Your task to perform on an android device: Clear the shopping cart on walmart.com. Image 0: 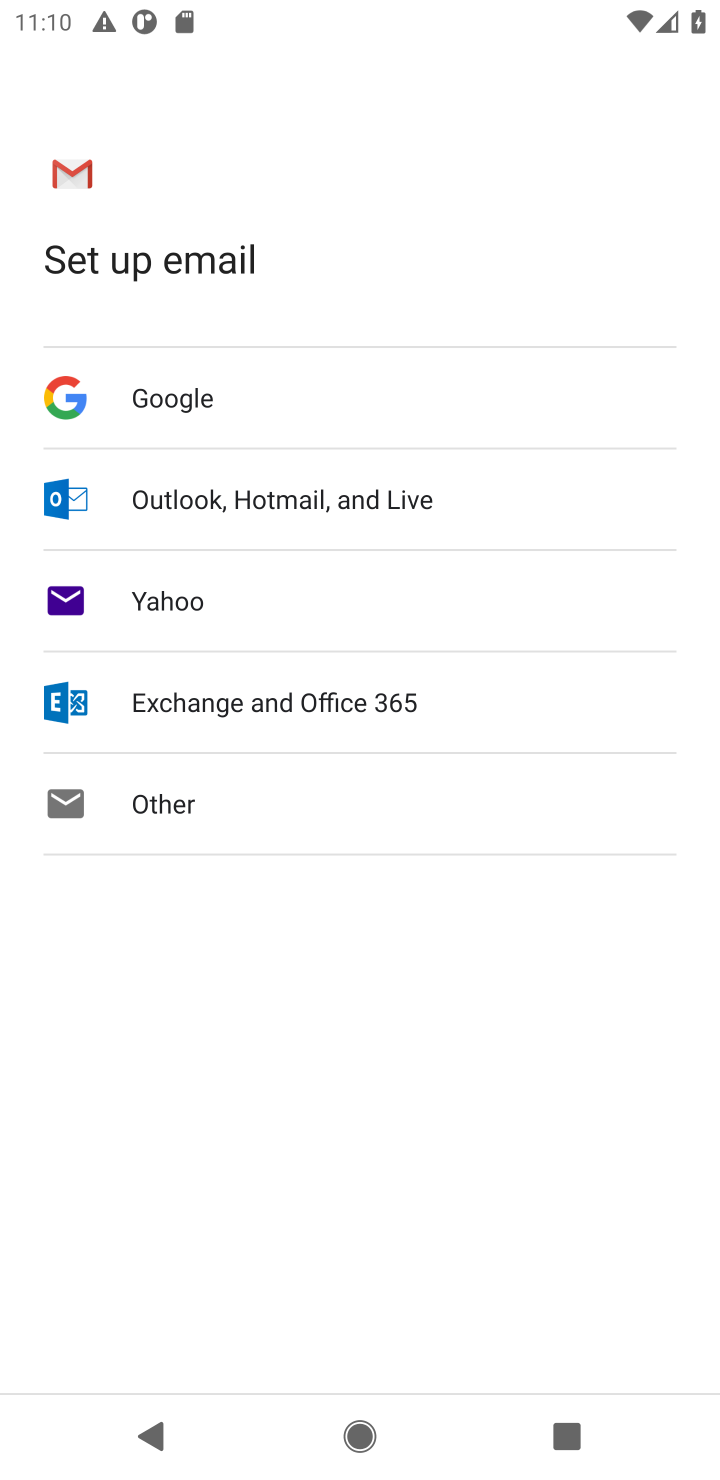
Step 0: press home button
Your task to perform on an android device: Clear the shopping cart on walmart.com. Image 1: 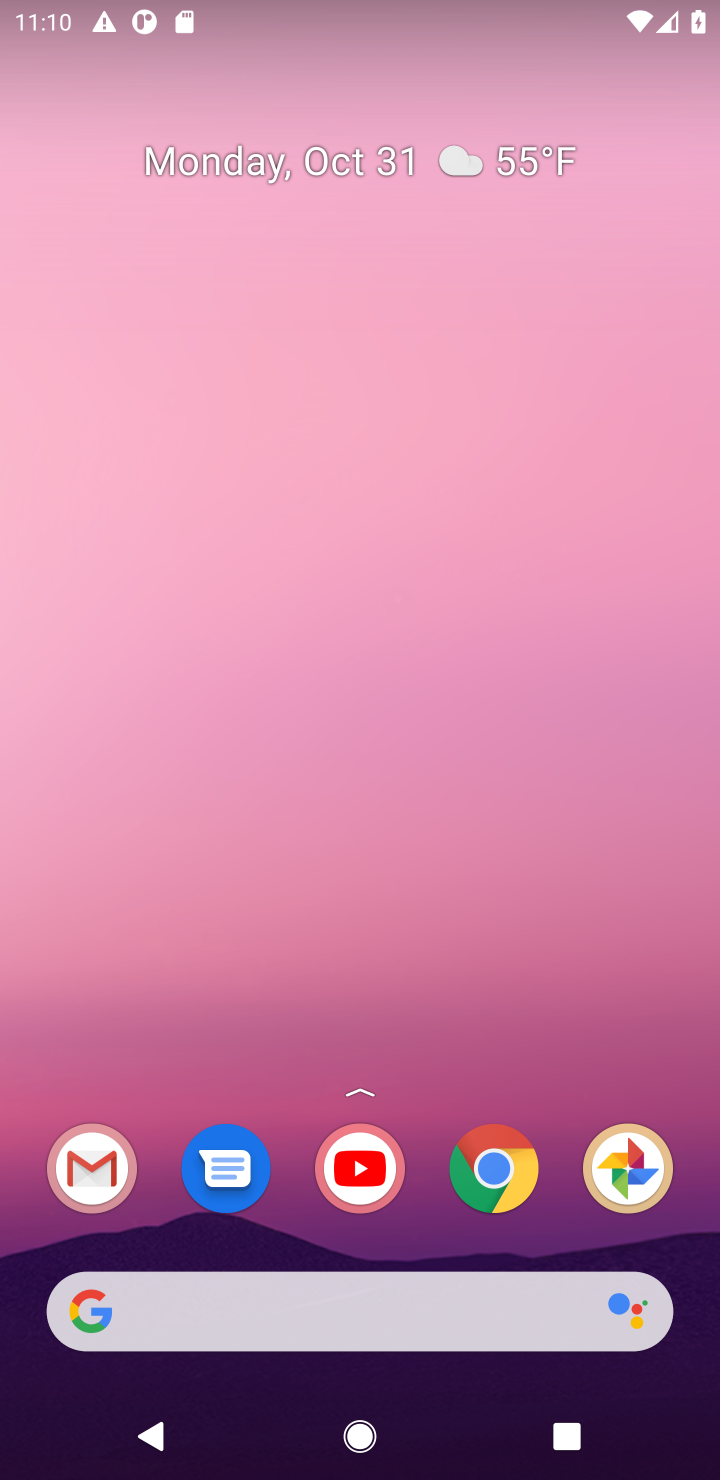
Step 1: click (501, 1189)
Your task to perform on an android device: Clear the shopping cart on walmart.com. Image 2: 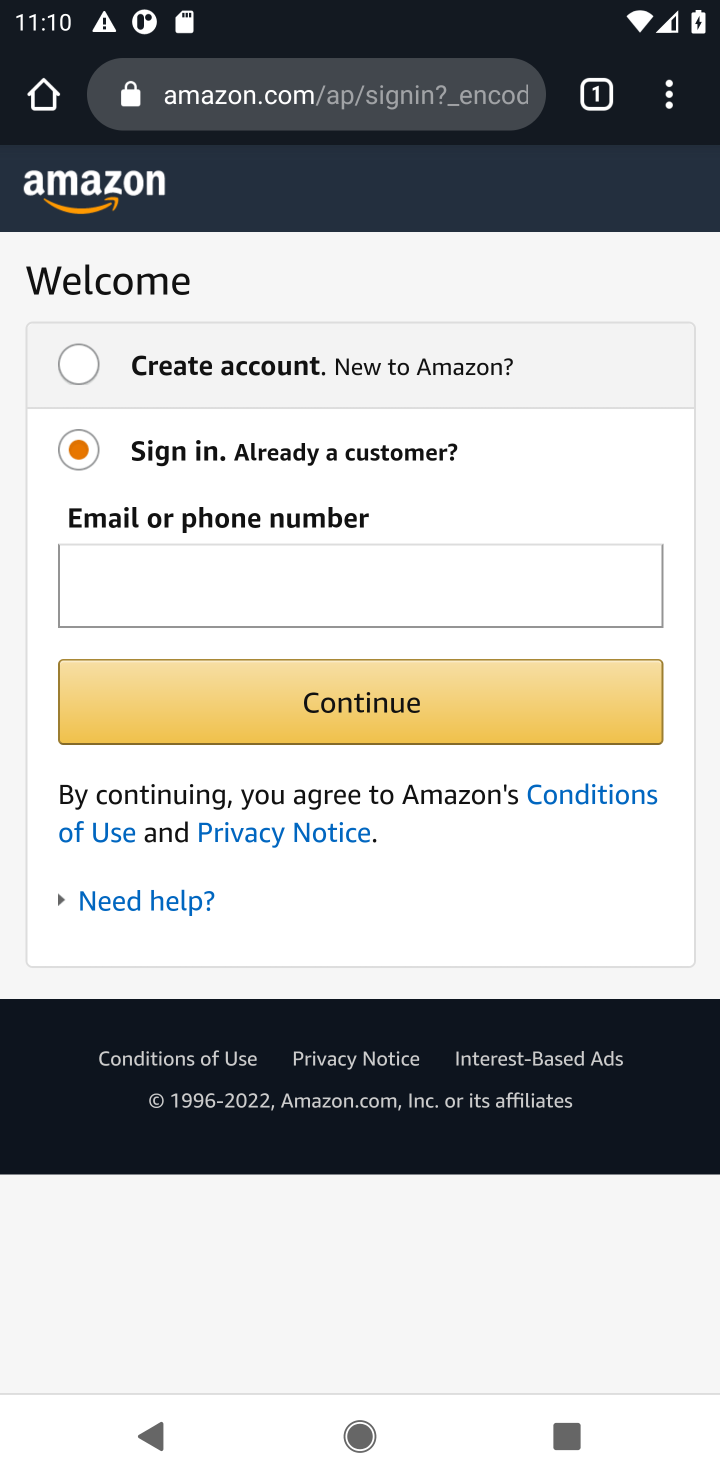
Step 2: click (303, 114)
Your task to perform on an android device: Clear the shopping cart on walmart.com. Image 3: 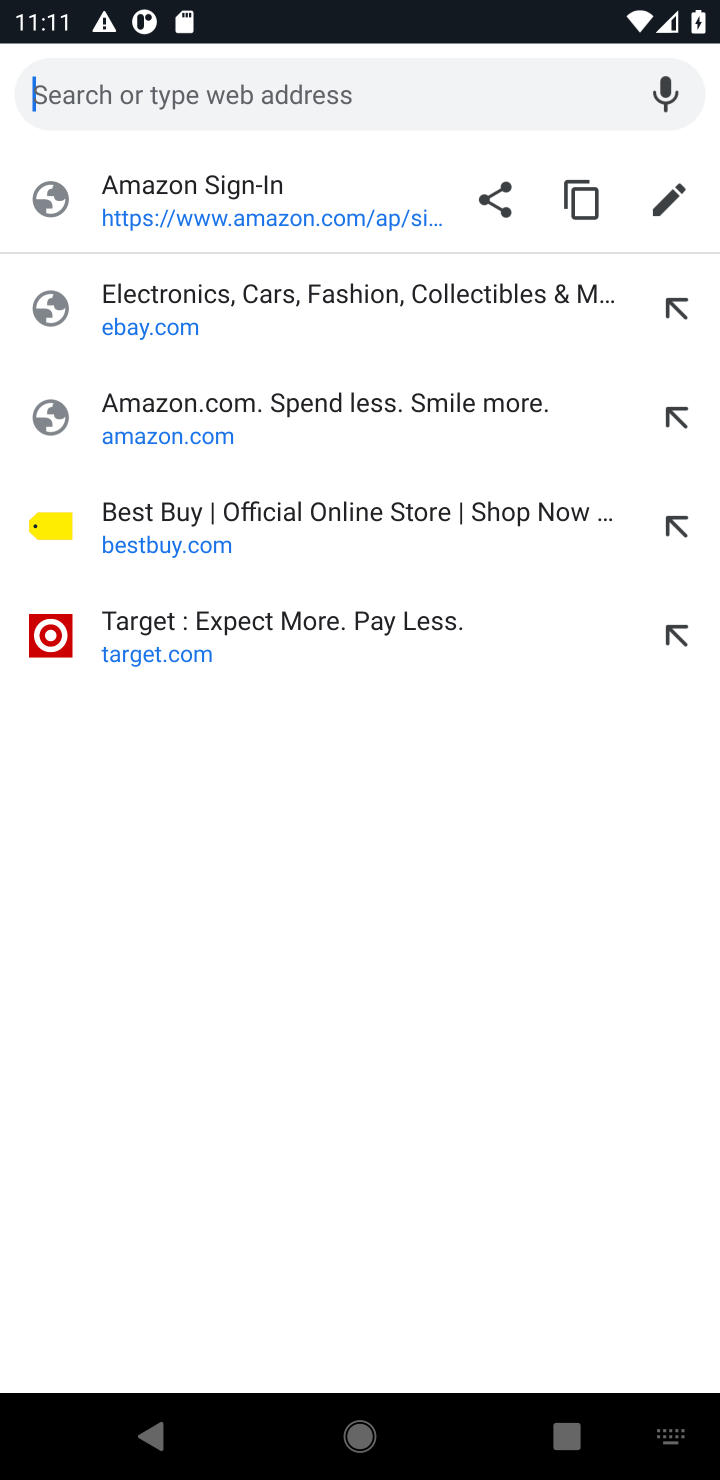
Step 3: type "walmart.com"
Your task to perform on an android device: Clear the shopping cart on walmart.com. Image 4: 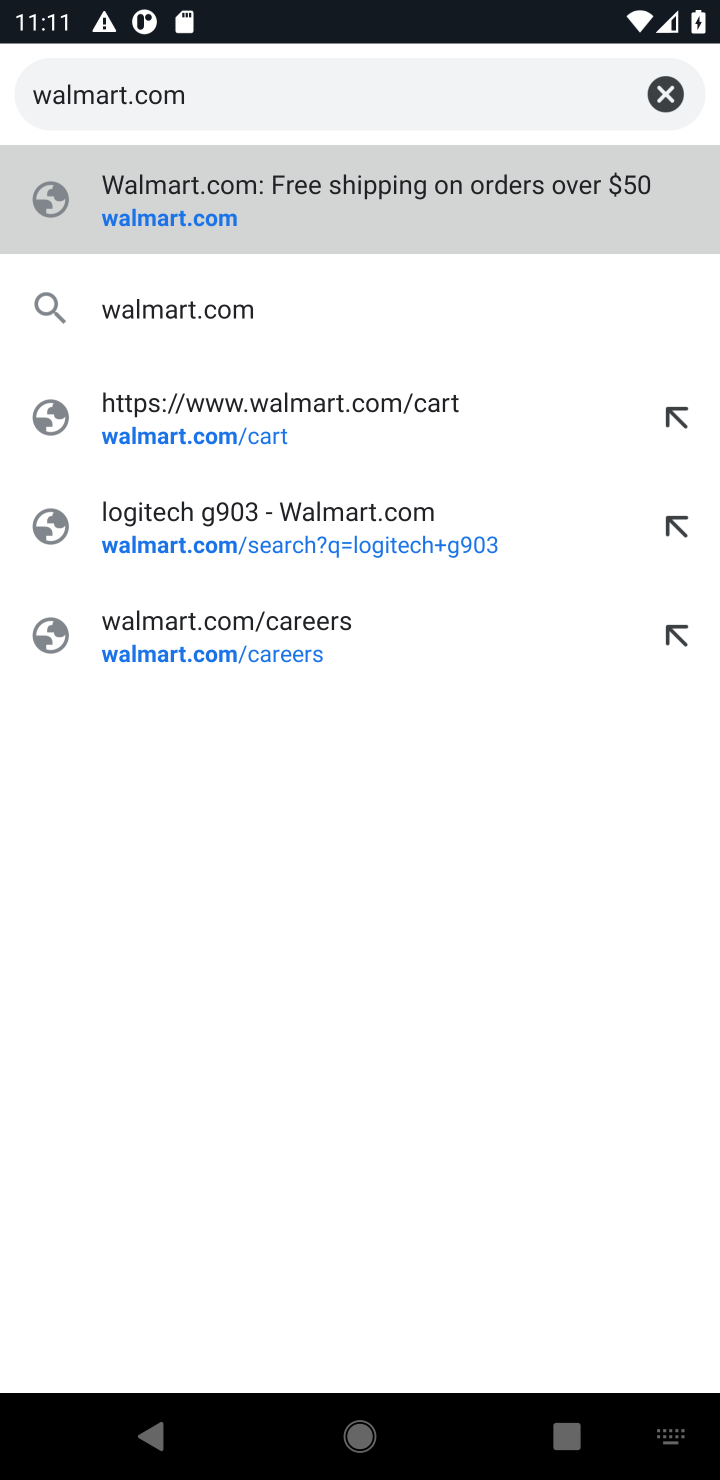
Step 4: click (369, 220)
Your task to perform on an android device: Clear the shopping cart on walmart.com. Image 5: 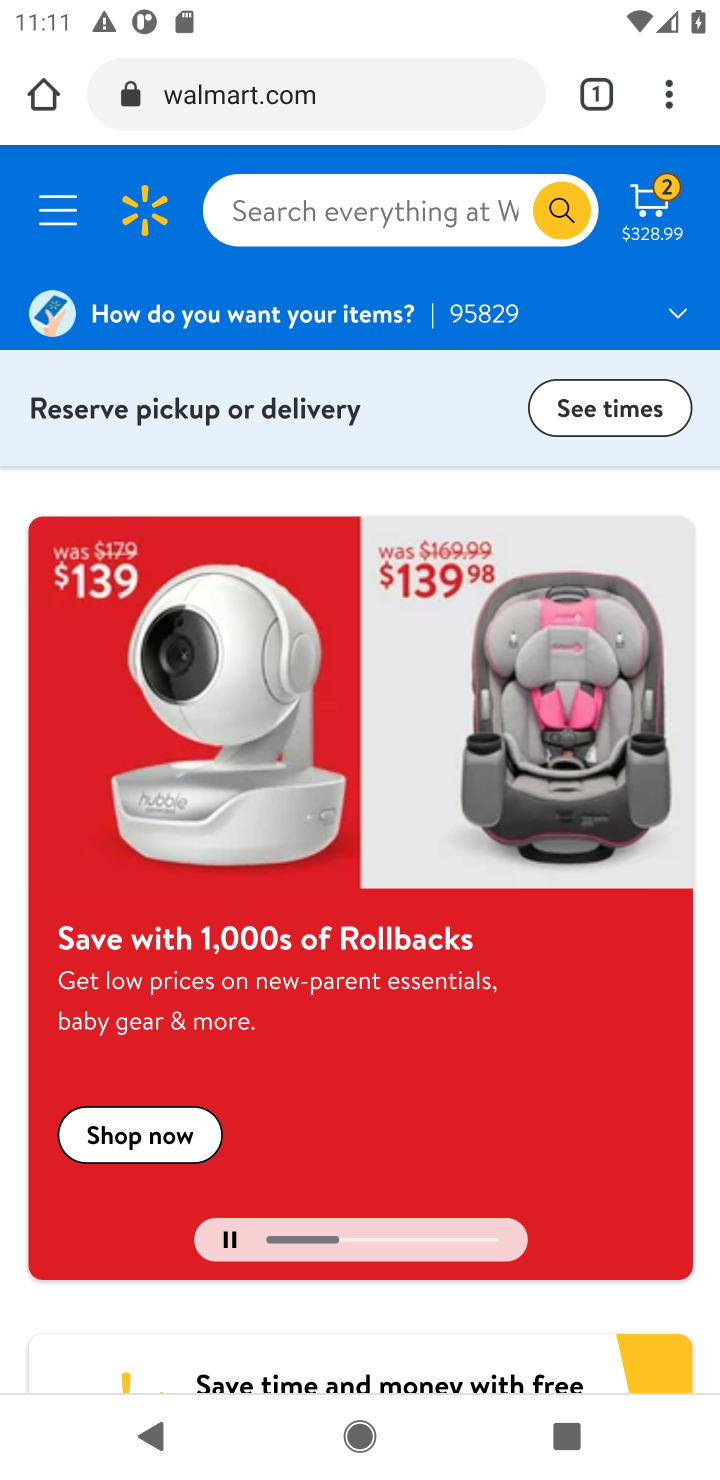
Step 5: click (664, 193)
Your task to perform on an android device: Clear the shopping cart on walmart.com. Image 6: 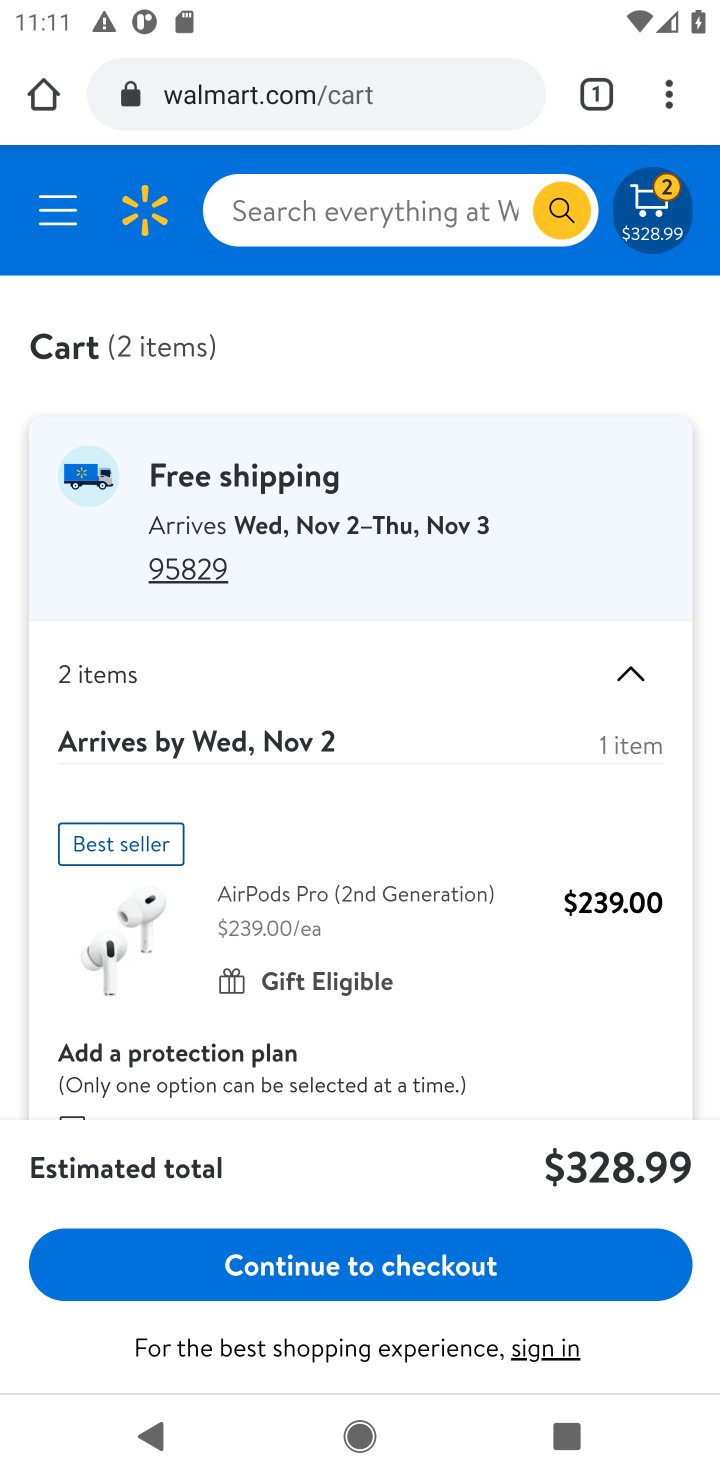
Step 6: drag from (596, 981) to (502, 342)
Your task to perform on an android device: Clear the shopping cart on walmart.com. Image 7: 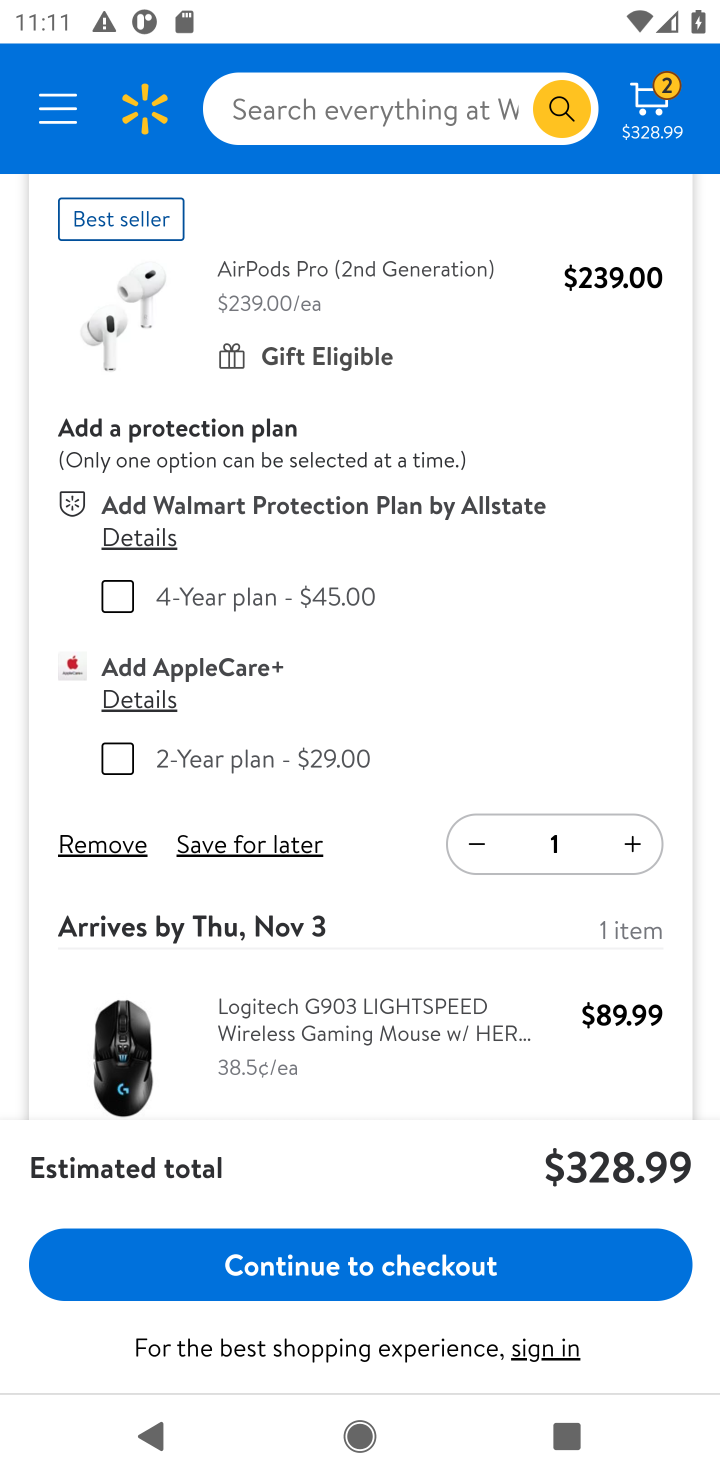
Step 7: click (102, 847)
Your task to perform on an android device: Clear the shopping cart on walmart.com. Image 8: 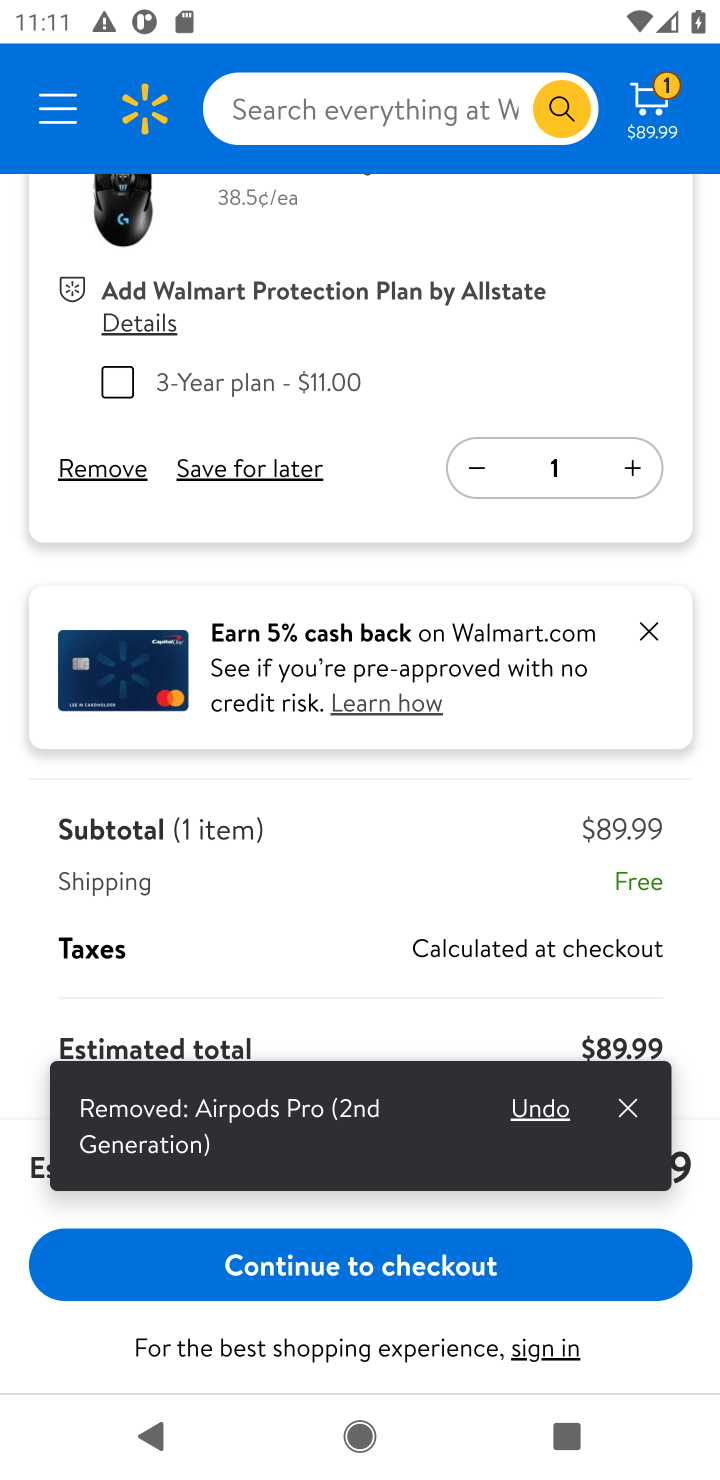
Step 8: click (102, 466)
Your task to perform on an android device: Clear the shopping cart on walmart.com. Image 9: 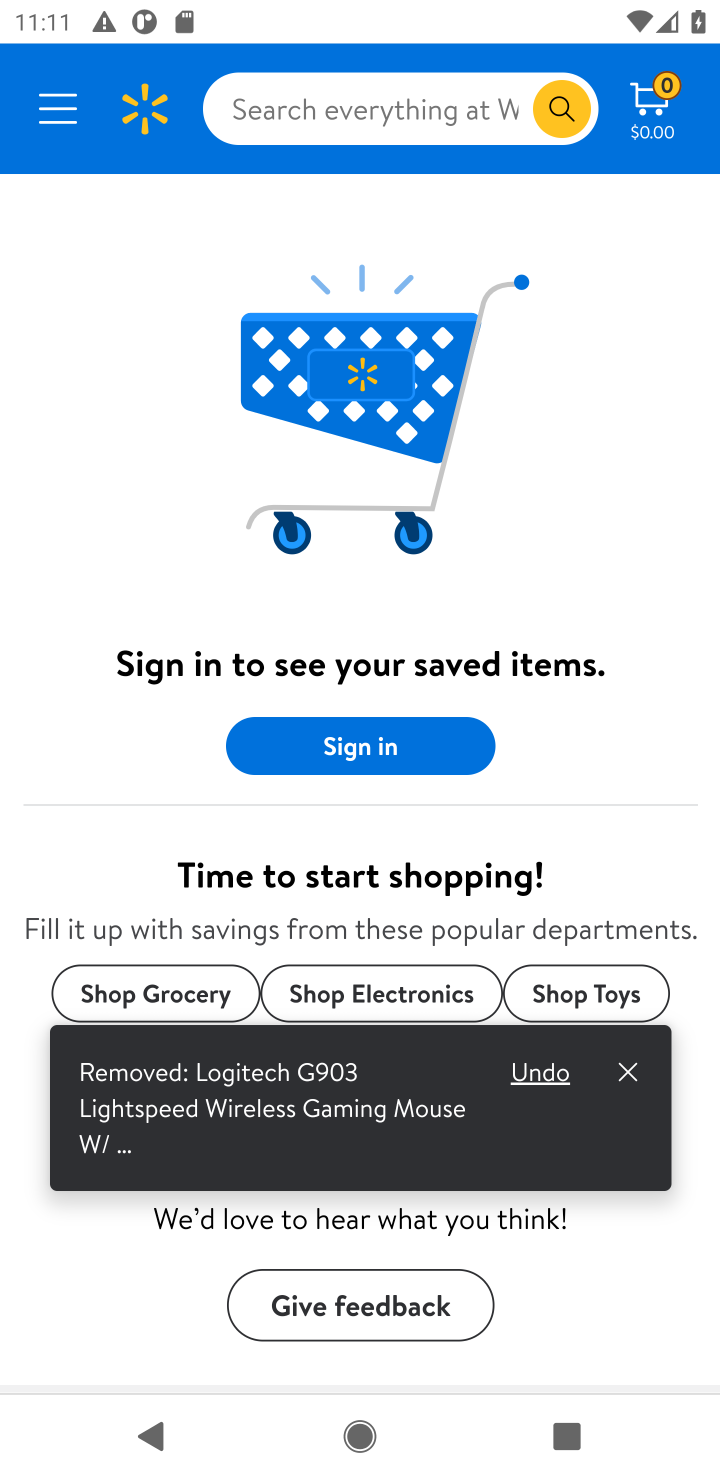
Step 9: click (629, 1072)
Your task to perform on an android device: Clear the shopping cart on walmart.com. Image 10: 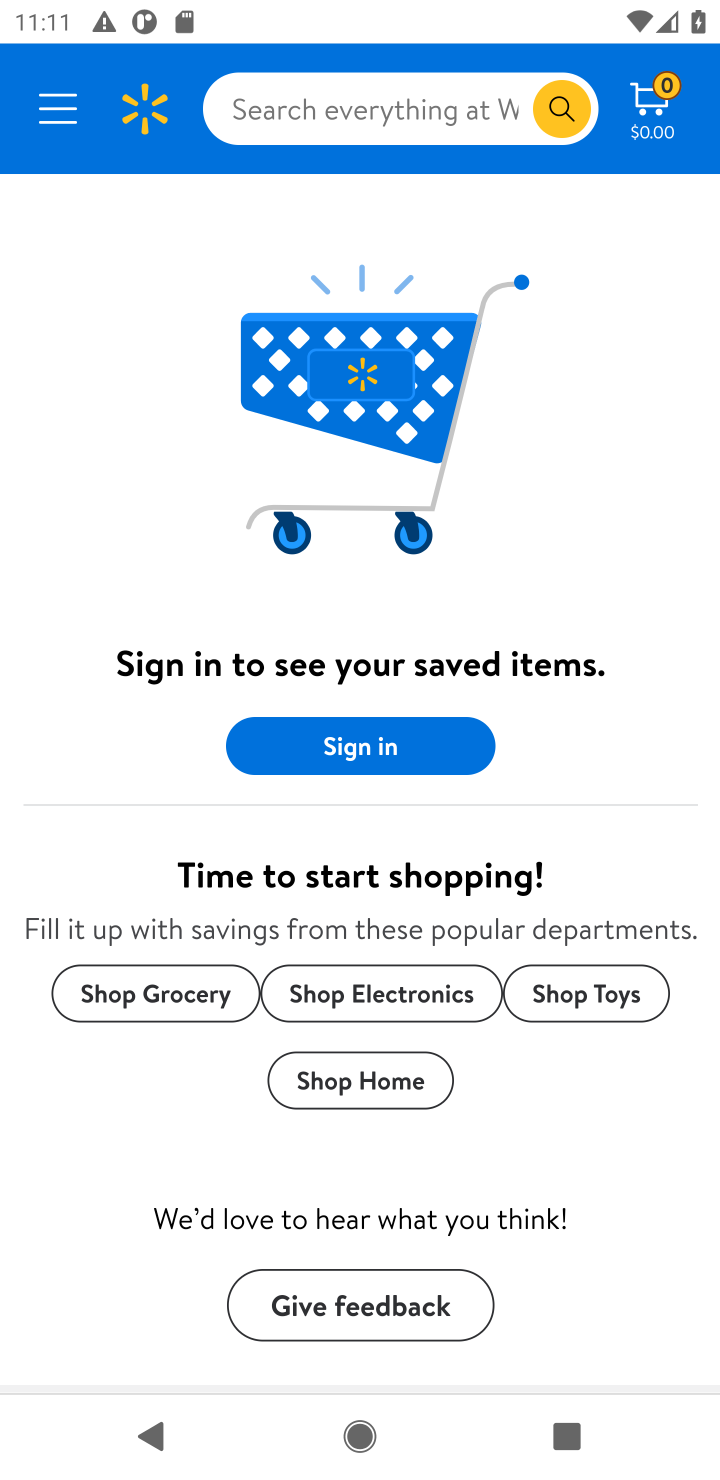
Step 10: task complete